Your task to perform on an android device: Open Google Chrome and open the bookmarks view Image 0: 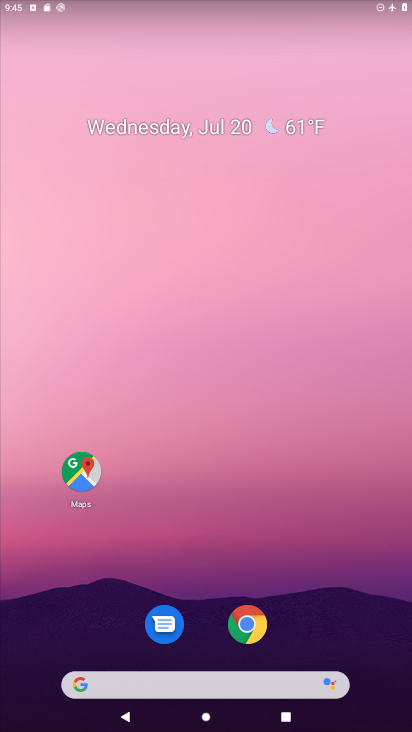
Step 0: click (246, 613)
Your task to perform on an android device: Open Google Chrome and open the bookmarks view Image 1: 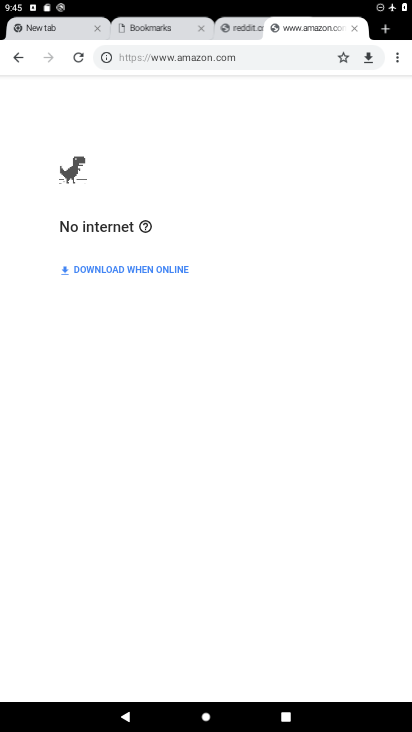
Step 1: click (393, 60)
Your task to perform on an android device: Open Google Chrome and open the bookmarks view Image 2: 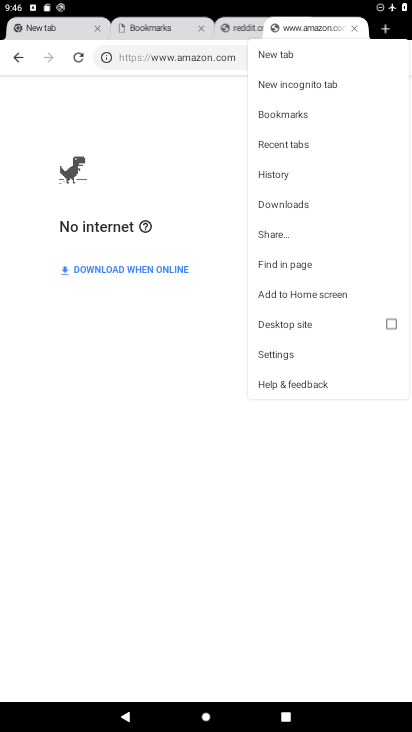
Step 2: click (304, 115)
Your task to perform on an android device: Open Google Chrome and open the bookmarks view Image 3: 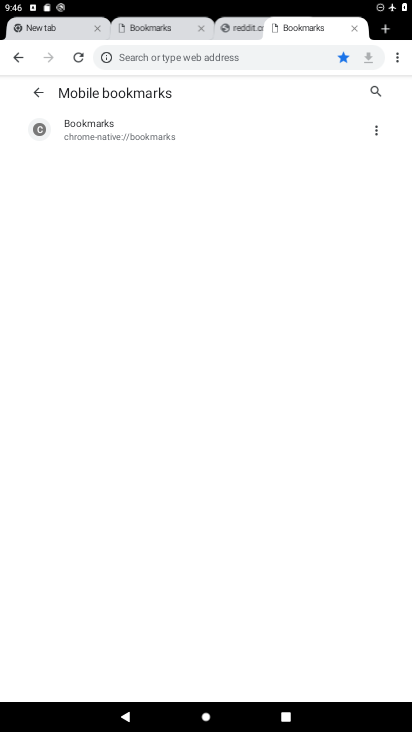
Step 3: task complete